Your task to perform on an android device: Google the capital of the United States Image 0: 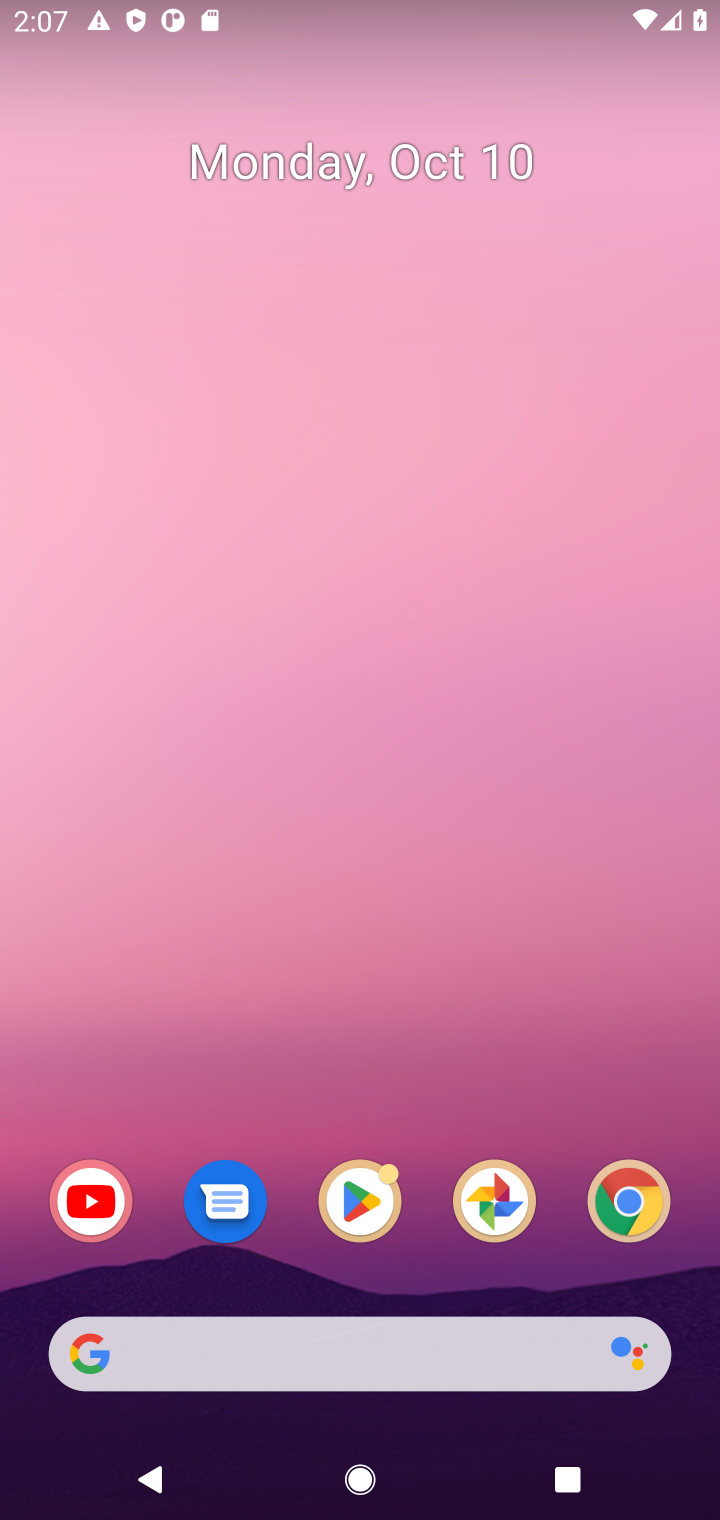
Step 0: click (427, 1366)
Your task to perform on an android device: Google the capital of the United States Image 1: 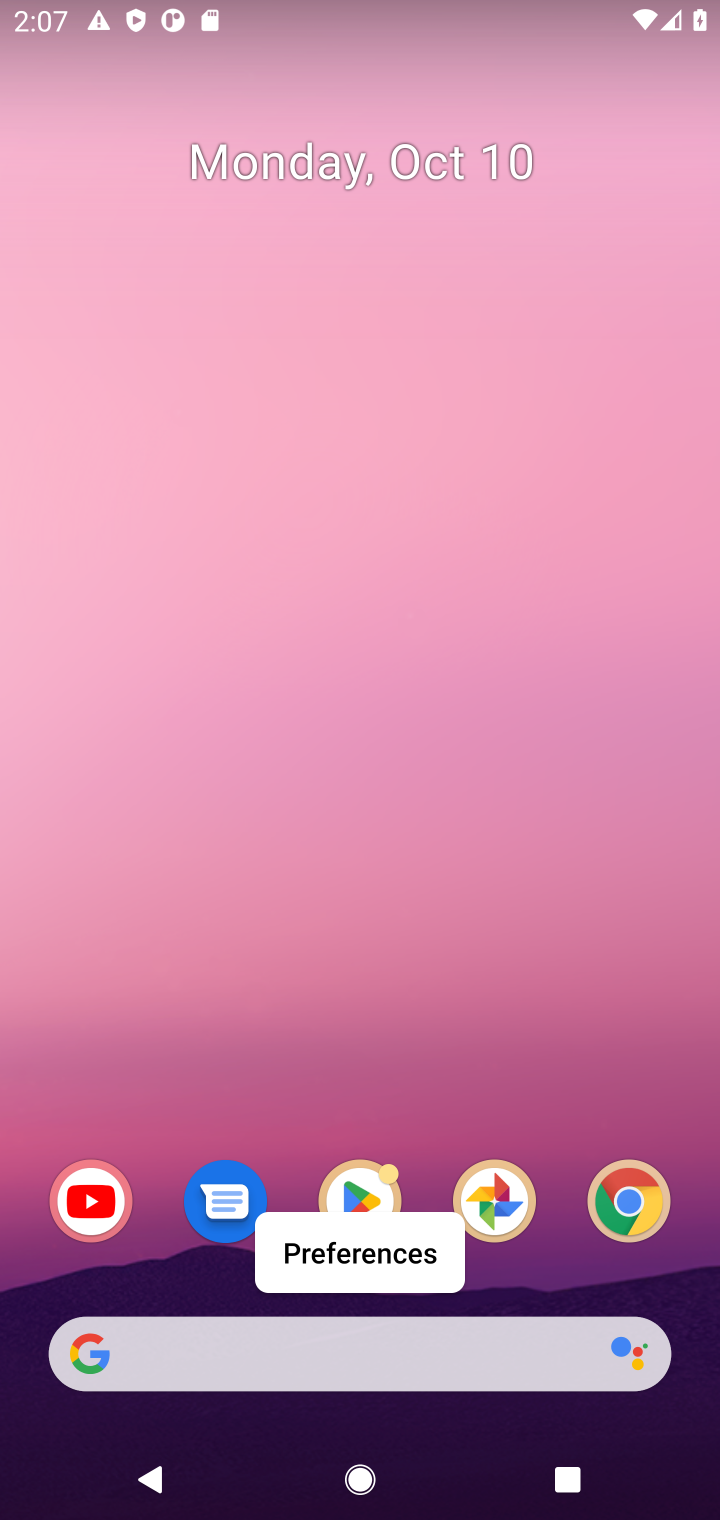
Step 1: click (365, 1354)
Your task to perform on an android device: Google the capital of the United States Image 2: 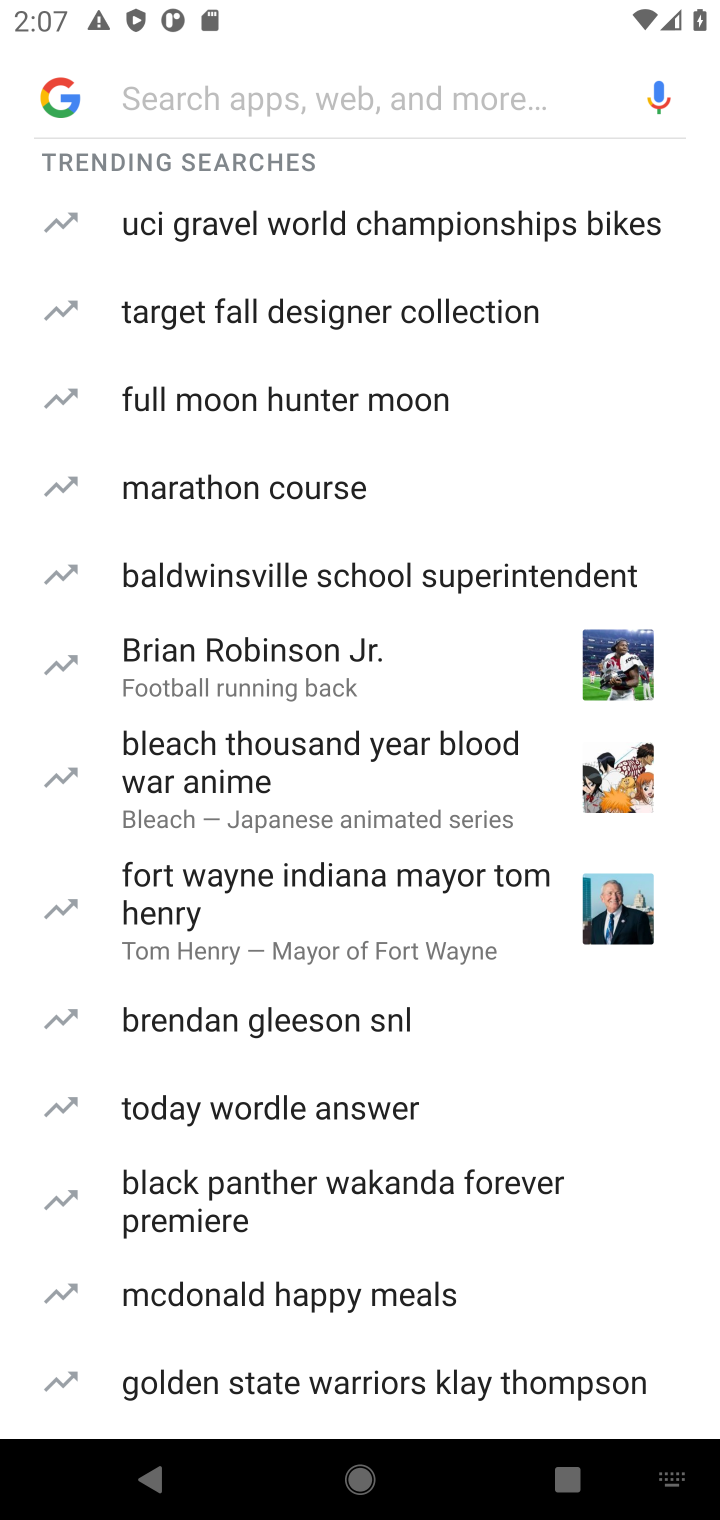
Step 2: type "capital of the United States"
Your task to perform on an android device: Google the capital of the United States Image 3: 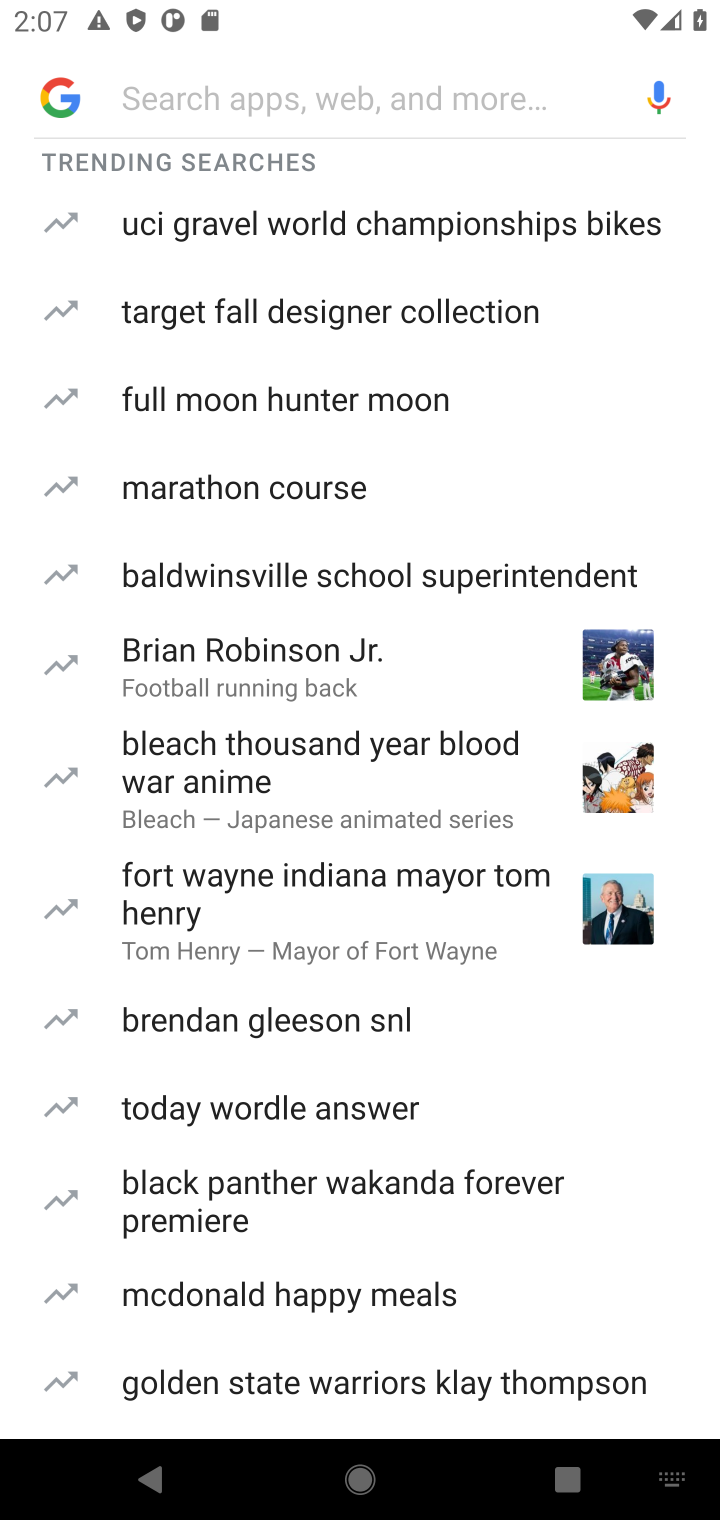
Step 3: click (224, 97)
Your task to perform on an android device: Google the capital of the United States Image 4: 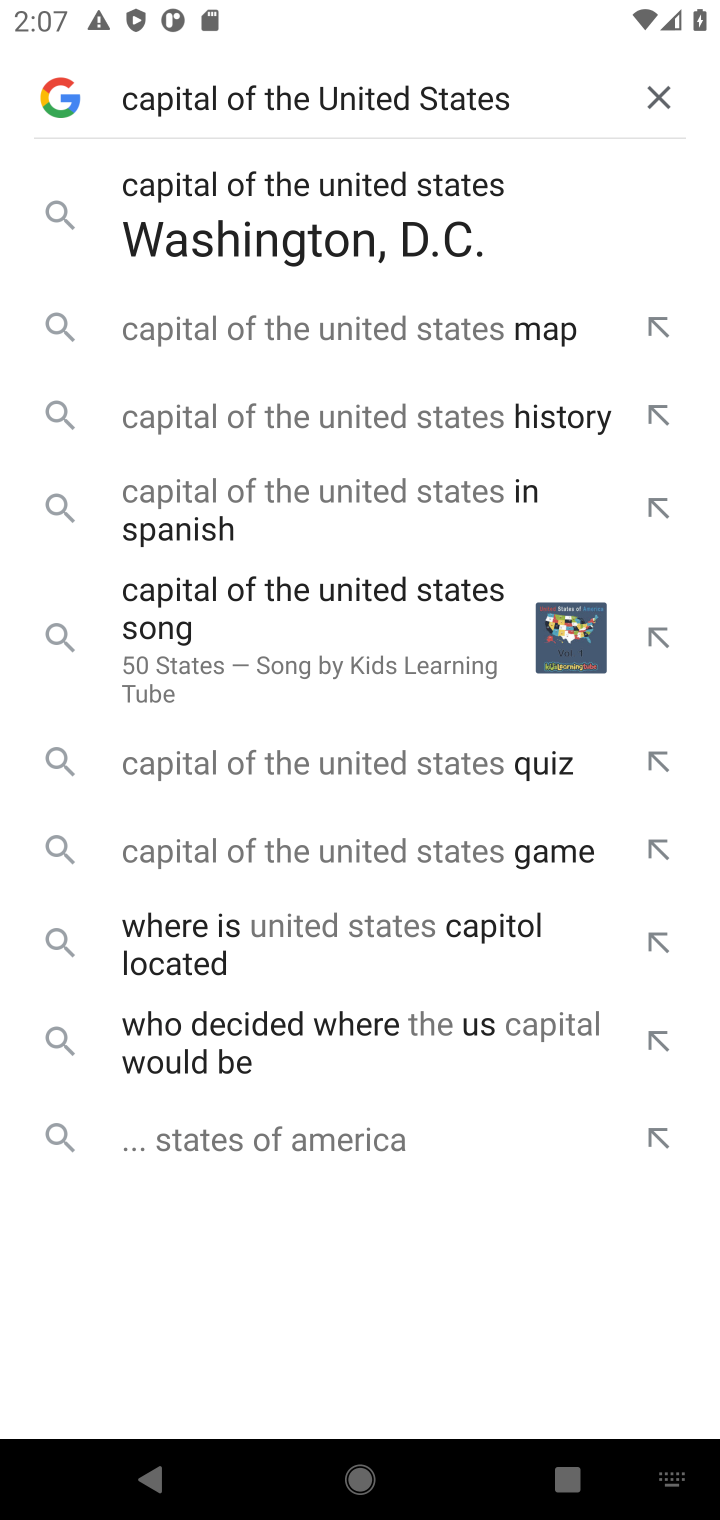
Step 4: press enter
Your task to perform on an android device: Google the capital of the United States Image 5: 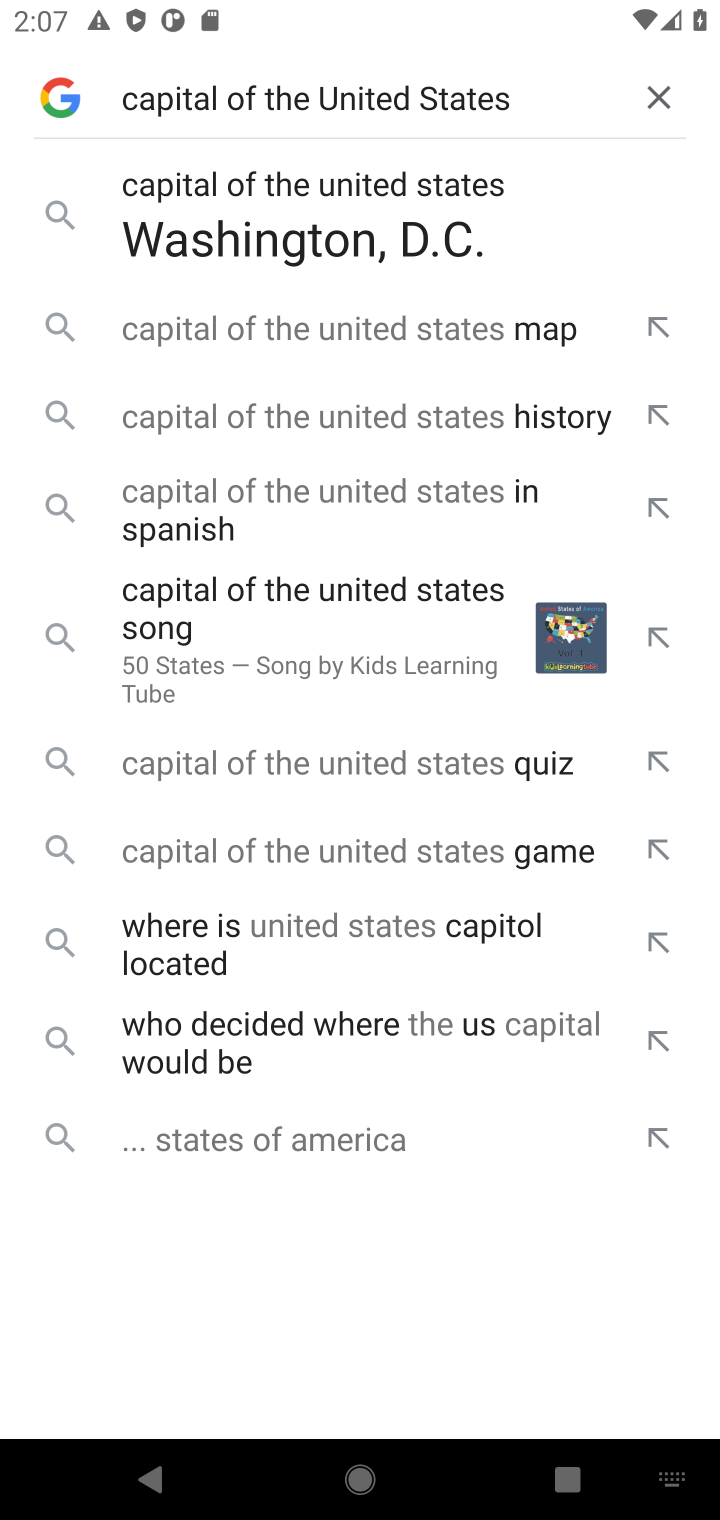
Step 5: click (224, 97)
Your task to perform on an android device: Google the capital of the United States Image 6: 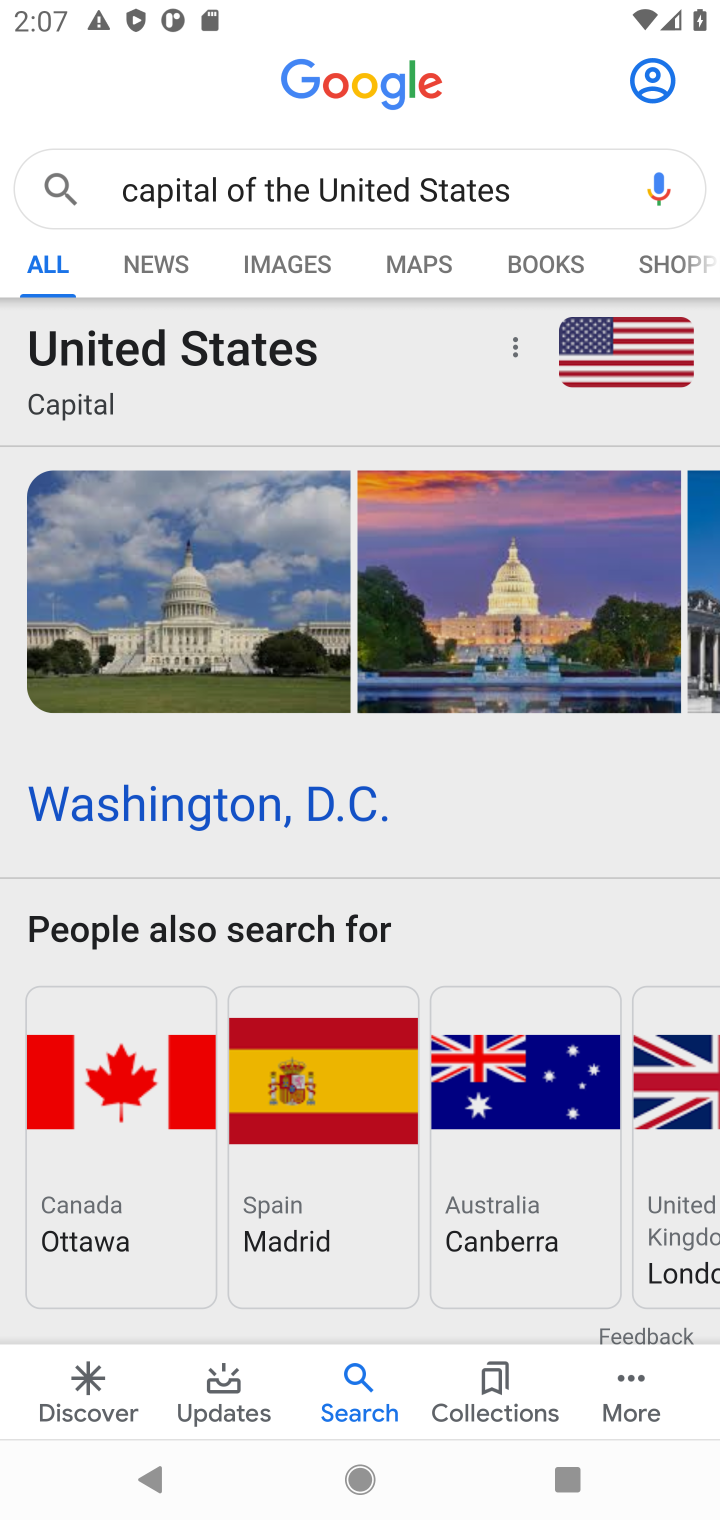
Step 6: drag from (530, 809) to (519, 274)
Your task to perform on an android device: Google the capital of the United States Image 7: 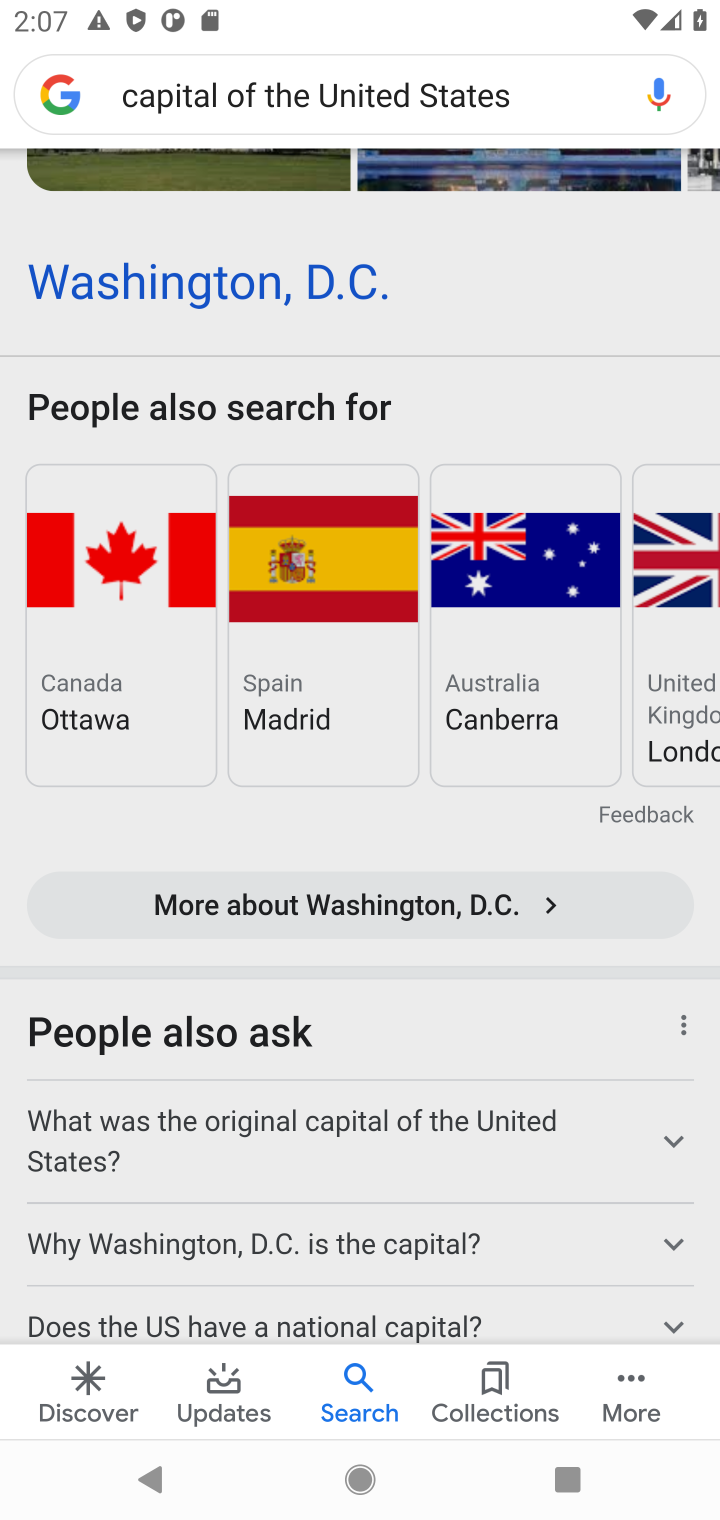
Step 7: drag from (509, 1055) to (568, 452)
Your task to perform on an android device: Google the capital of the United States Image 8: 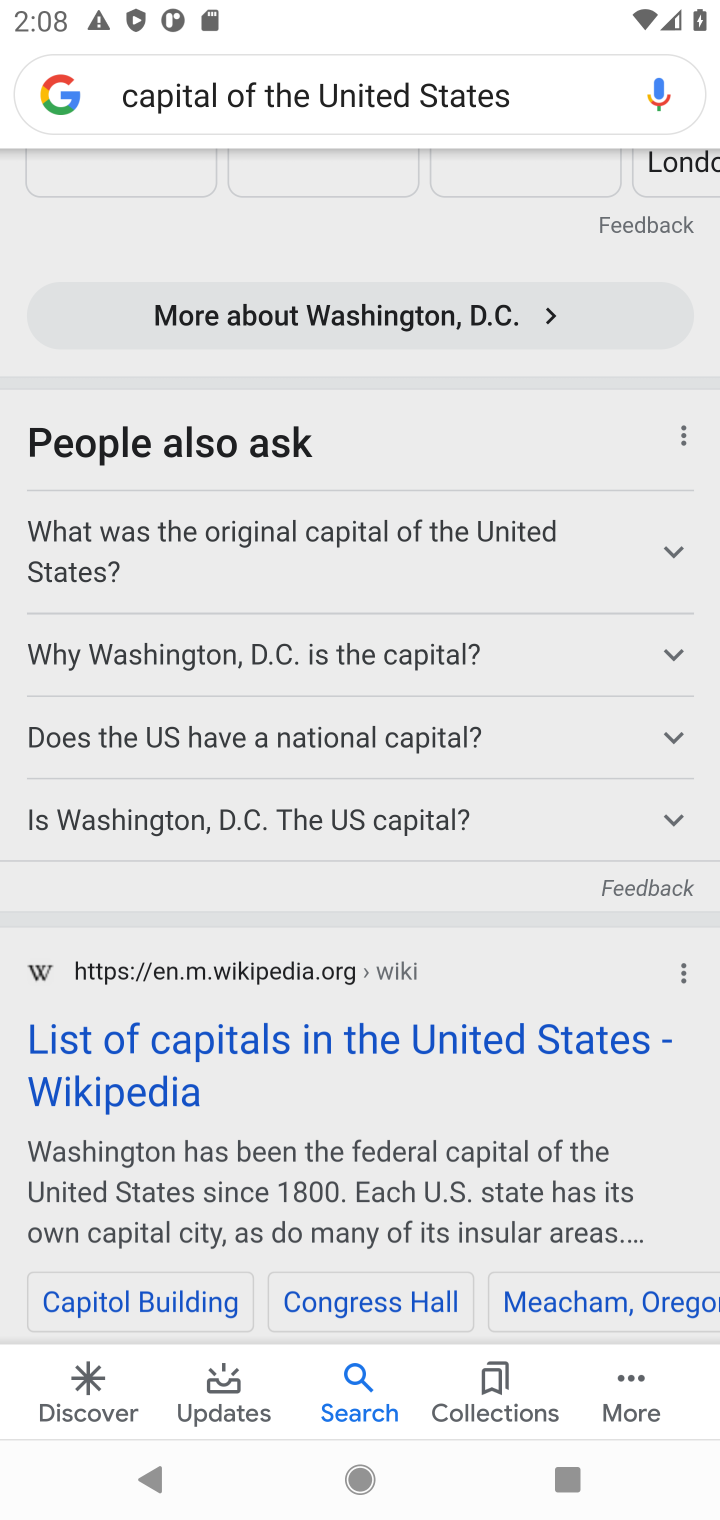
Step 8: drag from (587, 468) to (634, 289)
Your task to perform on an android device: Google the capital of the United States Image 9: 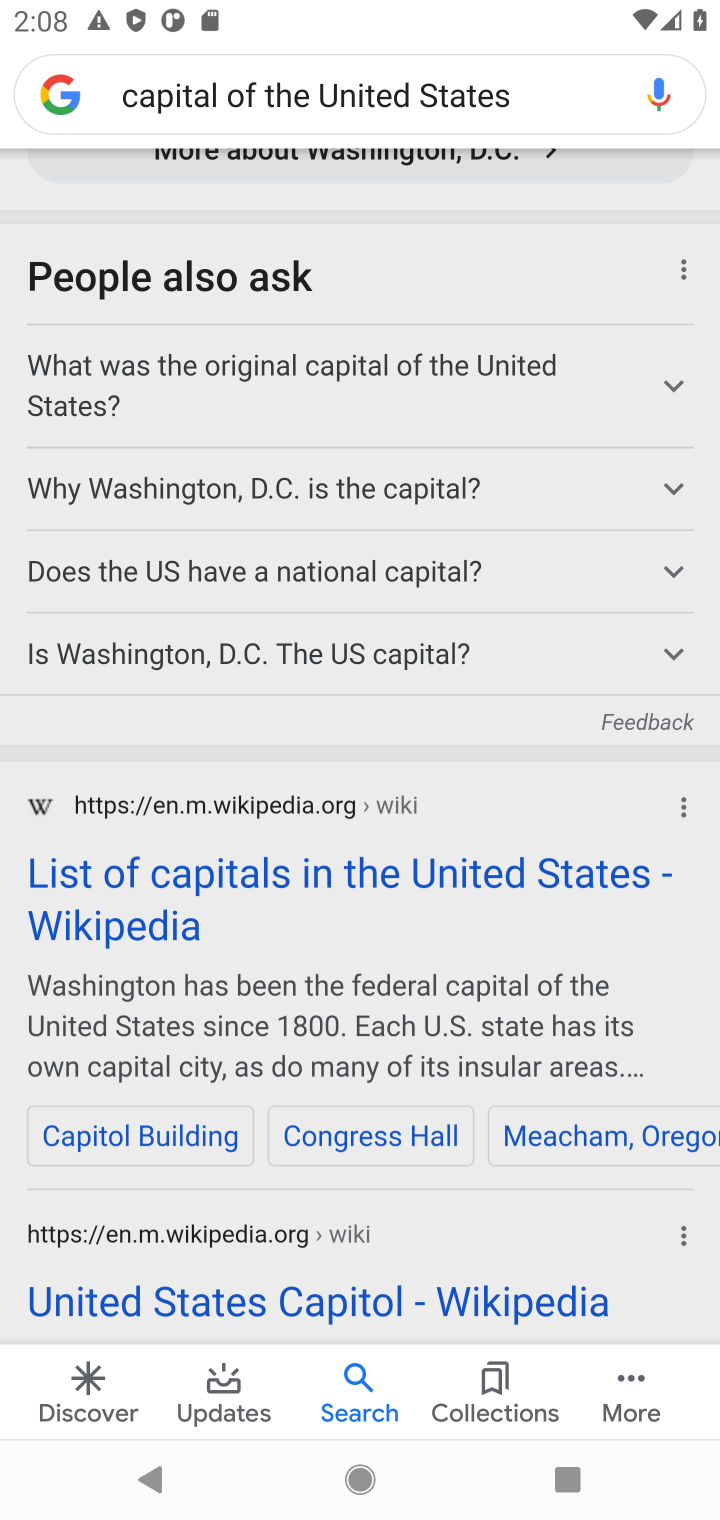
Step 9: drag from (518, 1324) to (582, 1012)
Your task to perform on an android device: Google the capital of the United States Image 10: 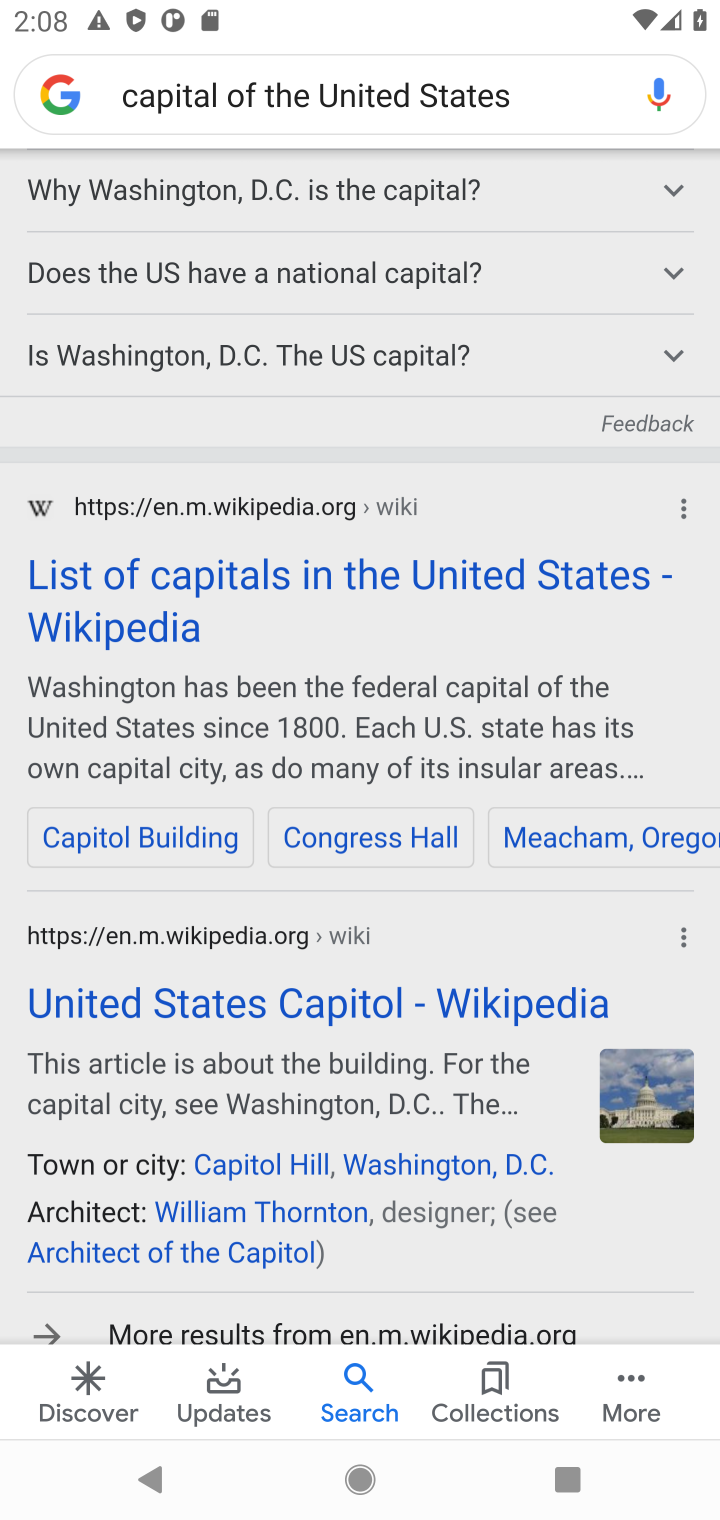
Step 10: click (506, 996)
Your task to perform on an android device: Google the capital of the United States Image 11: 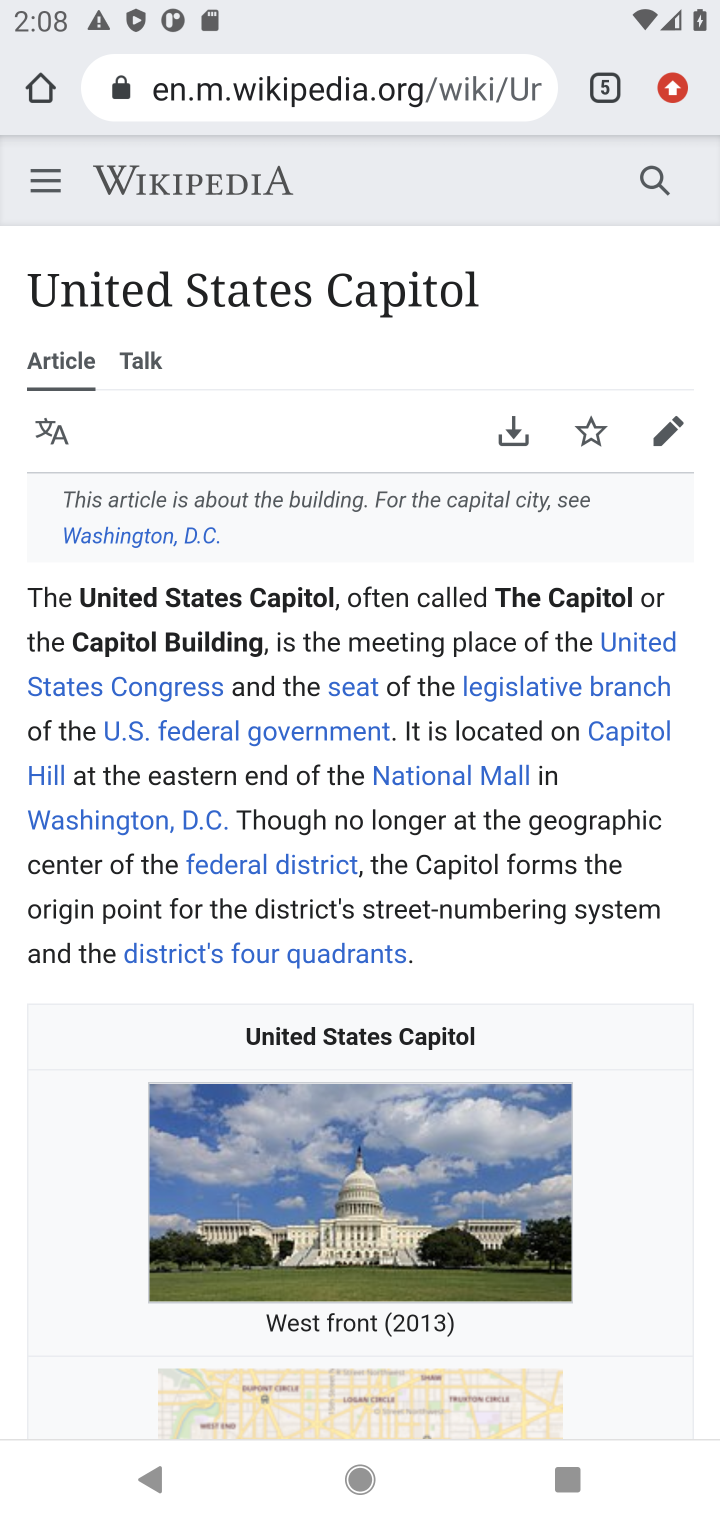
Step 11: task complete